Your task to perform on an android device: see creations saved in the google photos Image 0: 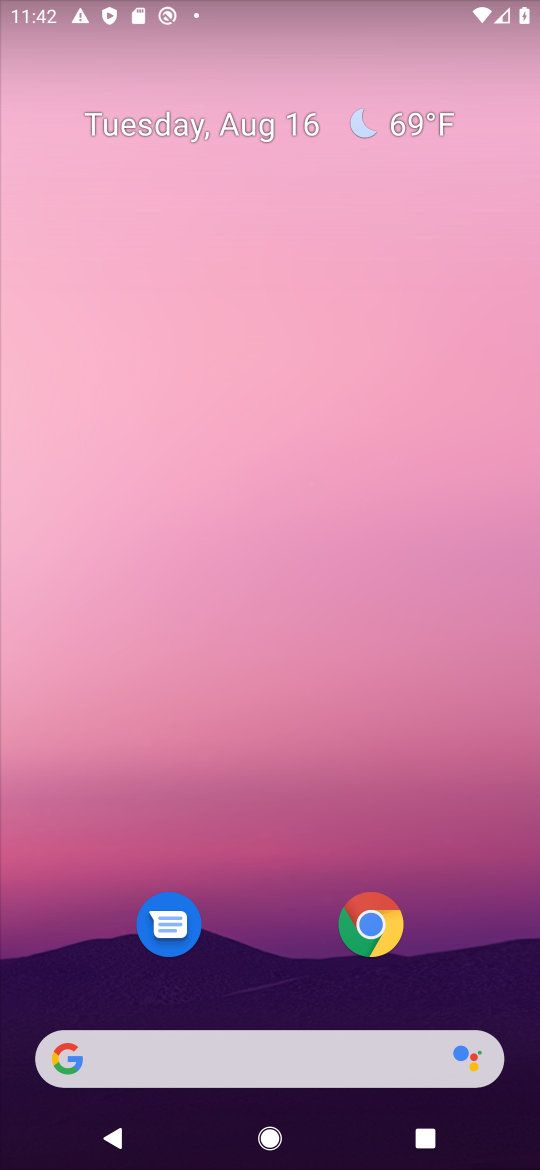
Step 0: drag from (258, 997) to (299, 123)
Your task to perform on an android device: see creations saved in the google photos Image 1: 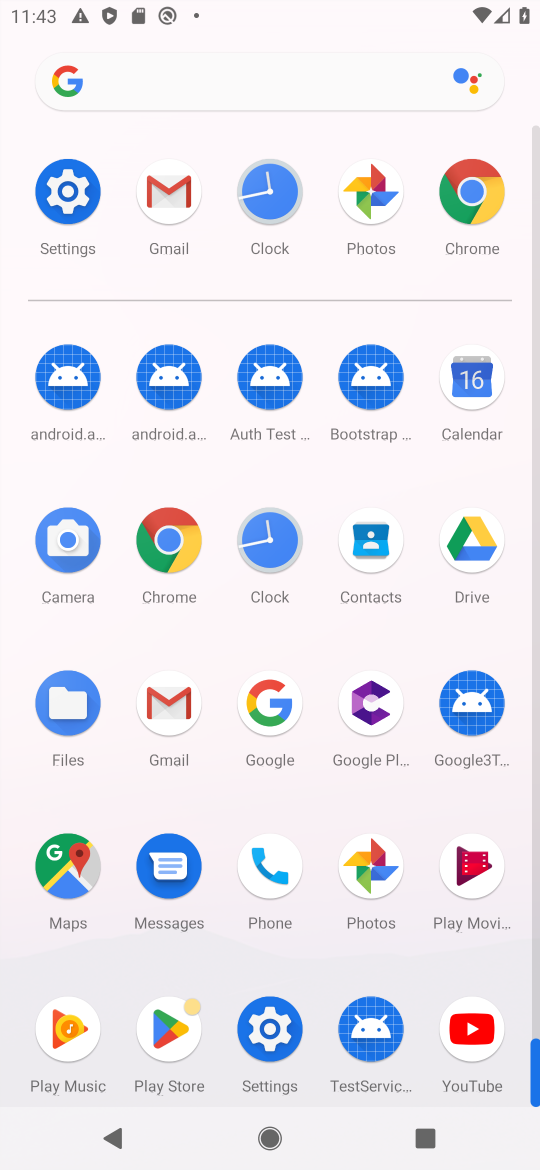
Step 1: click (362, 211)
Your task to perform on an android device: see creations saved in the google photos Image 2: 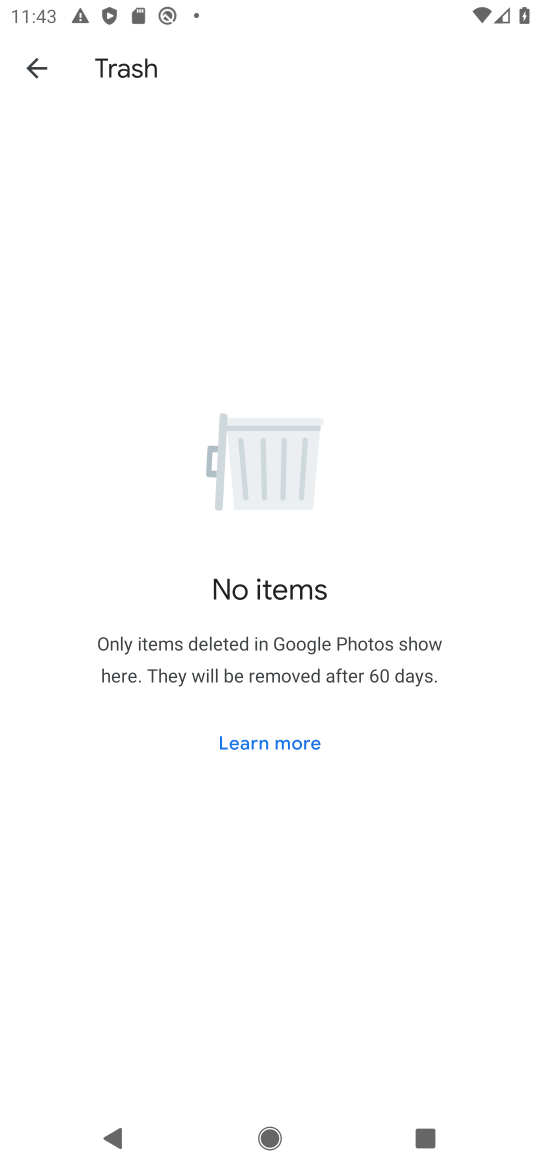
Step 2: click (50, 68)
Your task to perform on an android device: see creations saved in the google photos Image 3: 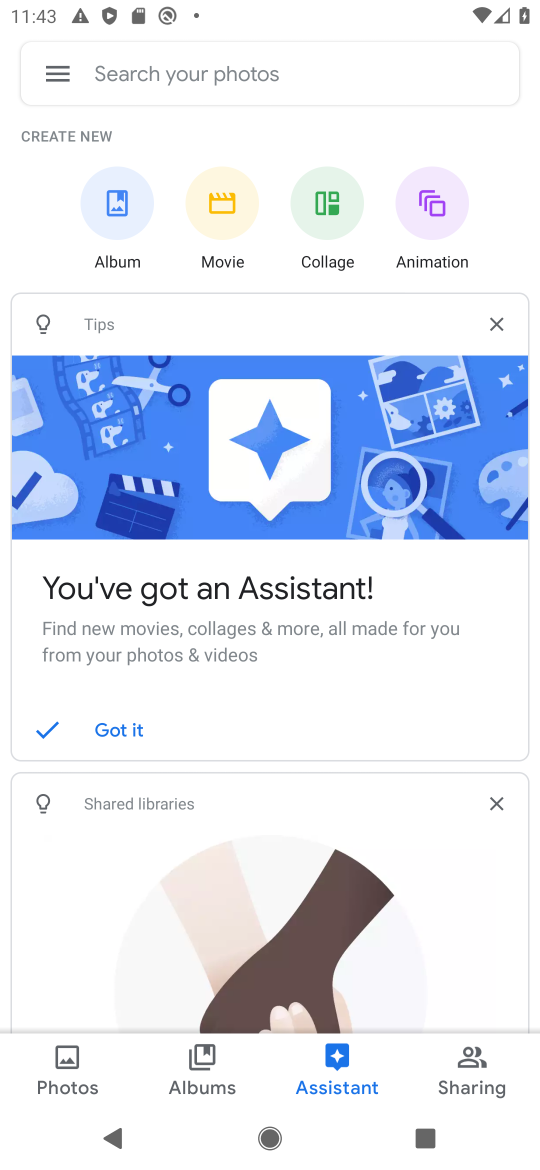
Step 3: click (454, 1060)
Your task to perform on an android device: see creations saved in the google photos Image 4: 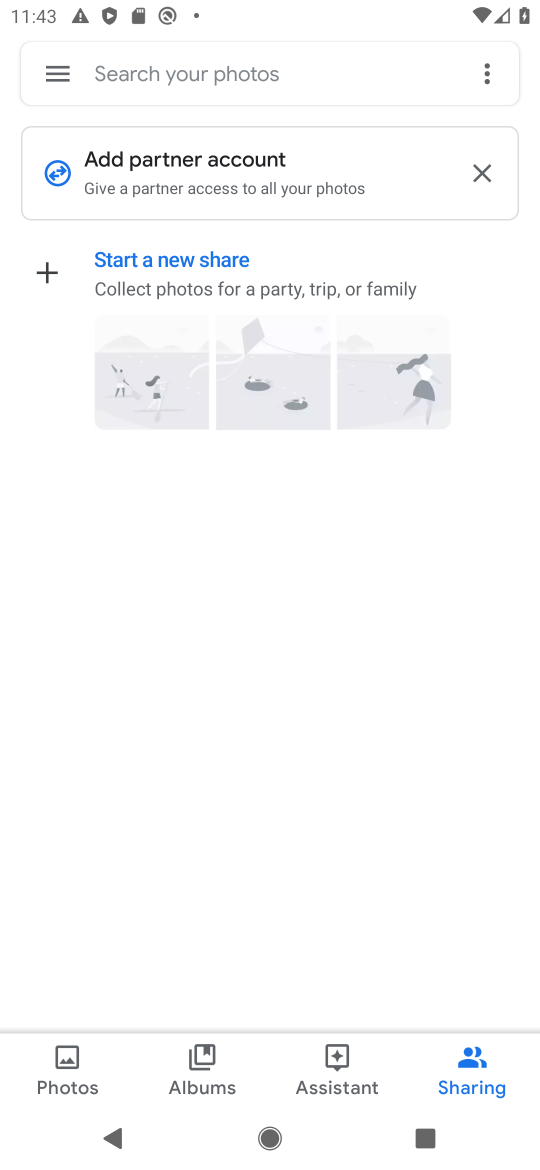
Step 4: task complete